Your task to perform on an android device: toggle airplane mode Image 0: 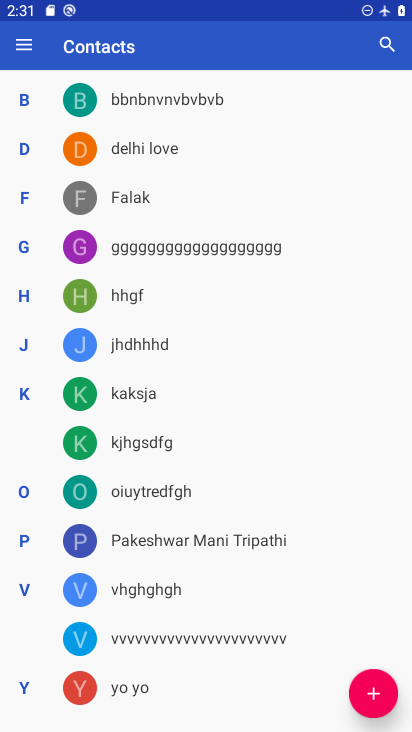
Step 0: press home button
Your task to perform on an android device: toggle airplane mode Image 1: 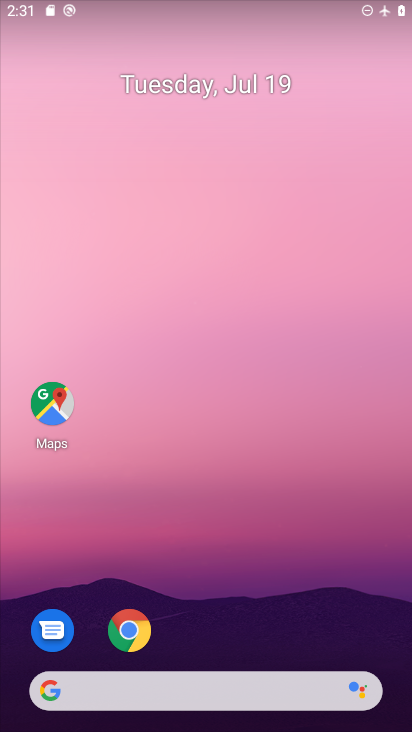
Step 1: drag from (356, 637) to (324, 0)
Your task to perform on an android device: toggle airplane mode Image 2: 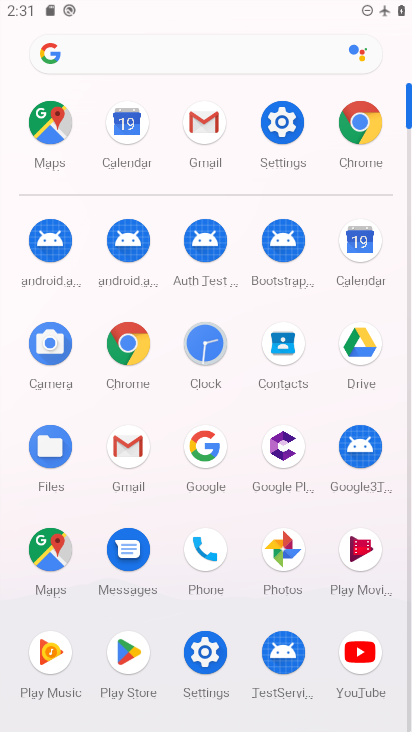
Step 2: click (205, 650)
Your task to perform on an android device: toggle airplane mode Image 3: 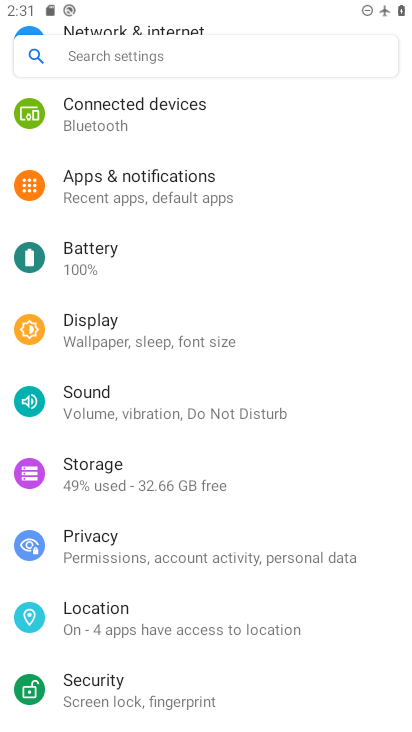
Step 3: drag from (300, 179) to (318, 422)
Your task to perform on an android device: toggle airplane mode Image 4: 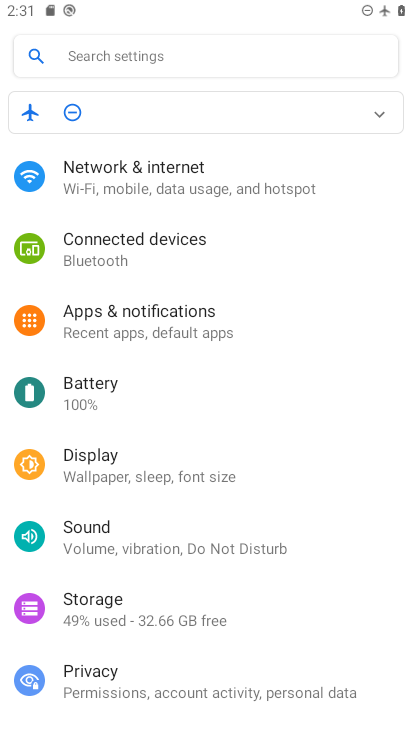
Step 4: click (97, 169)
Your task to perform on an android device: toggle airplane mode Image 5: 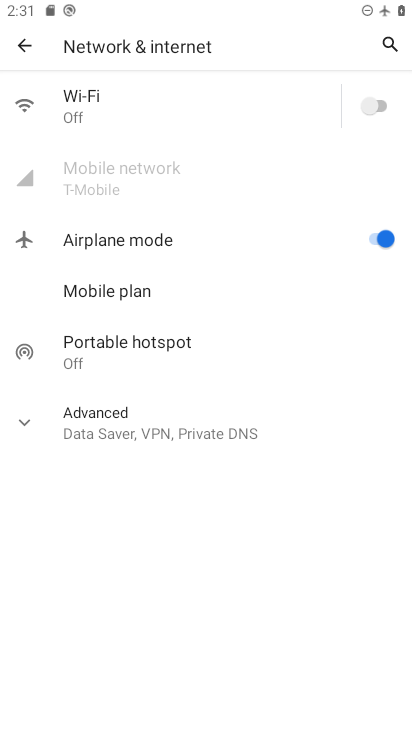
Step 5: click (367, 240)
Your task to perform on an android device: toggle airplane mode Image 6: 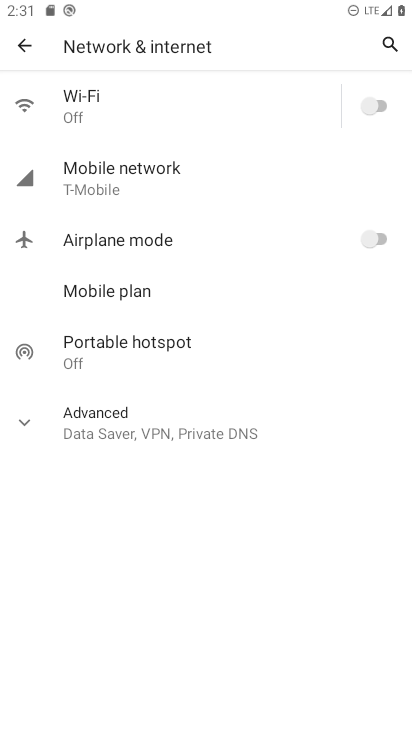
Step 6: task complete